Your task to perform on an android device: turn off location history Image 0: 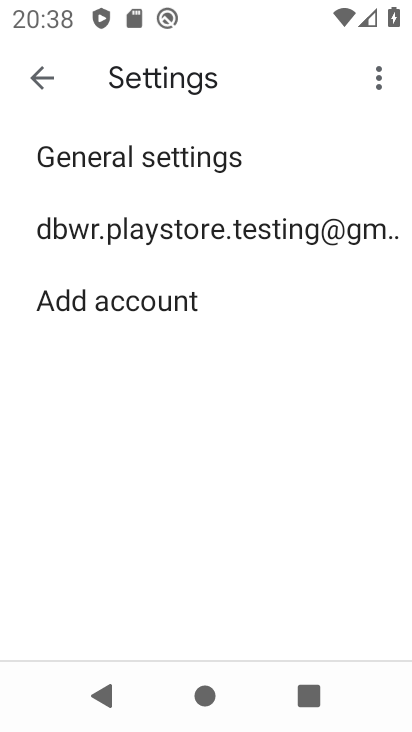
Step 0: press home button
Your task to perform on an android device: turn off location history Image 1: 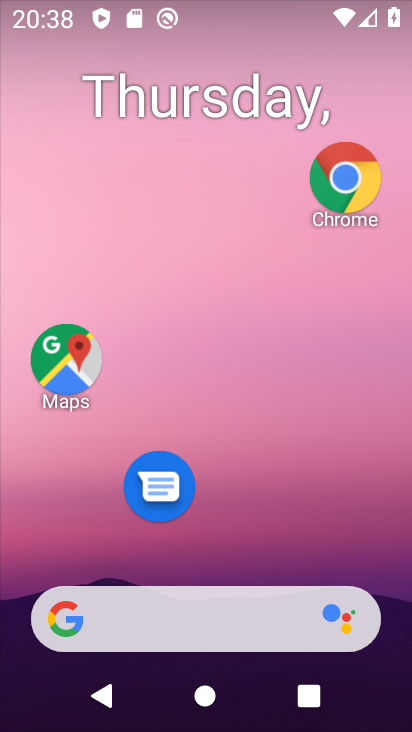
Step 1: drag from (216, 547) to (95, 51)
Your task to perform on an android device: turn off location history Image 2: 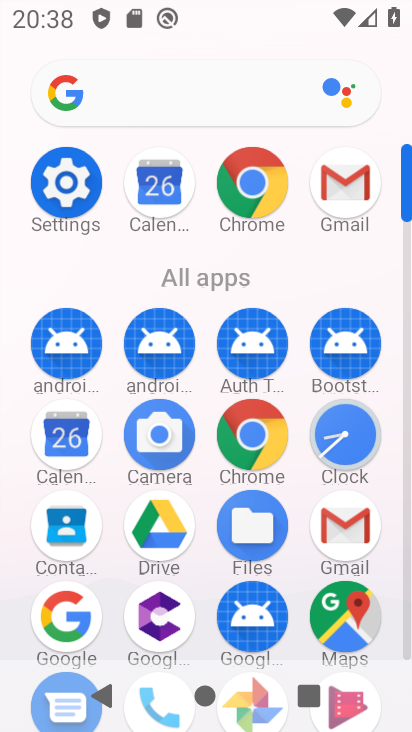
Step 2: click (76, 174)
Your task to perform on an android device: turn off location history Image 3: 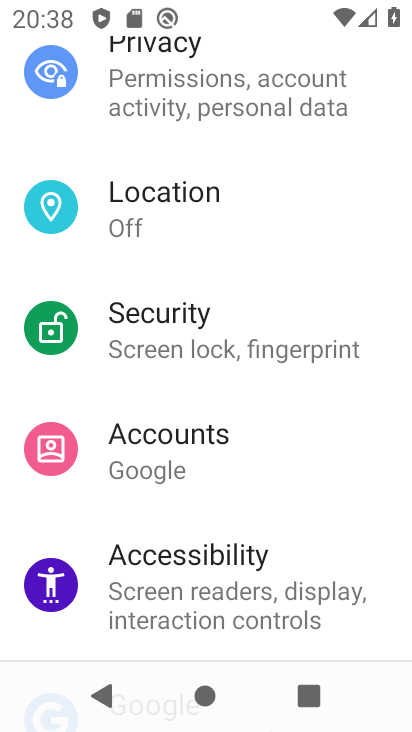
Step 3: click (143, 233)
Your task to perform on an android device: turn off location history Image 4: 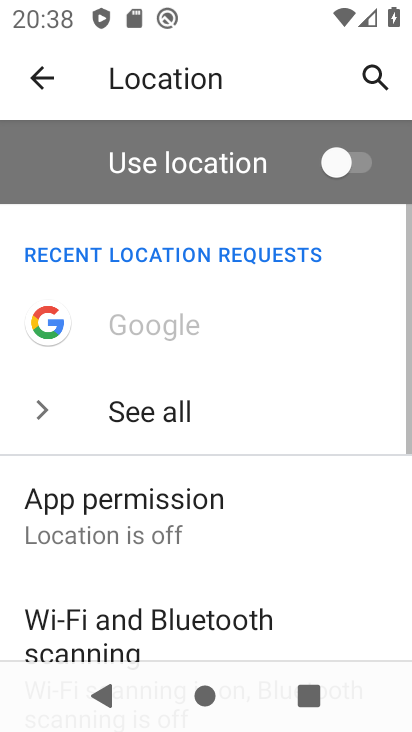
Step 4: drag from (218, 524) to (116, 29)
Your task to perform on an android device: turn off location history Image 5: 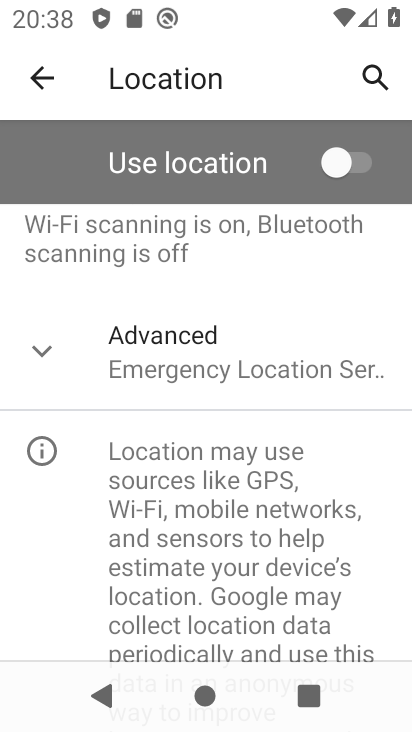
Step 5: click (211, 361)
Your task to perform on an android device: turn off location history Image 6: 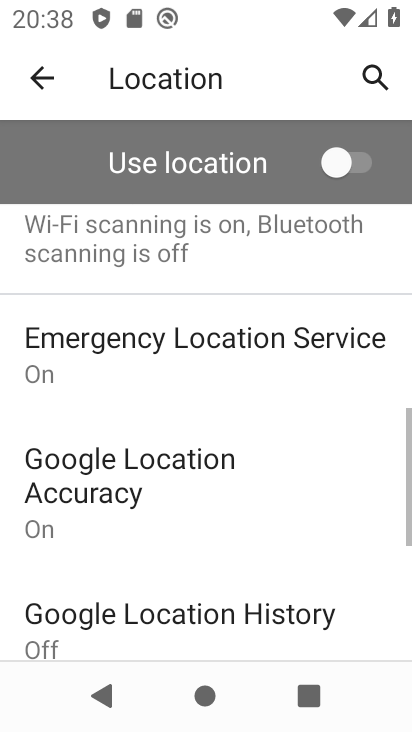
Step 6: drag from (210, 525) to (174, 239)
Your task to perform on an android device: turn off location history Image 7: 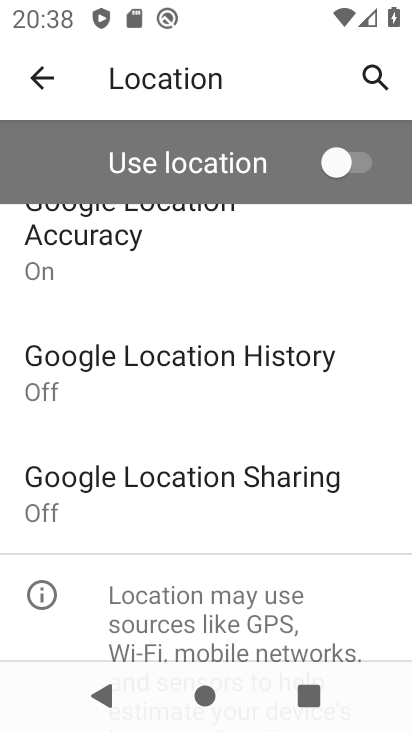
Step 7: click (233, 346)
Your task to perform on an android device: turn off location history Image 8: 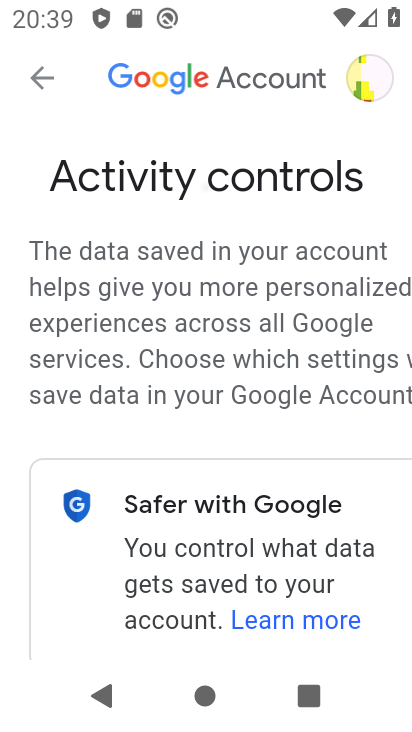
Step 8: drag from (202, 534) to (124, 84)
Your task to perform on an android device: turn off location history Image 9: 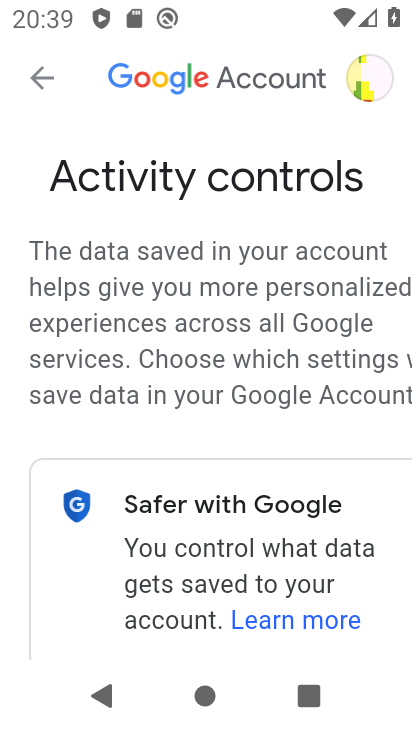
Step 9: drag from (221, 469) to (55, 6)
Your task to perform on an android device: turn off location history Image 10: 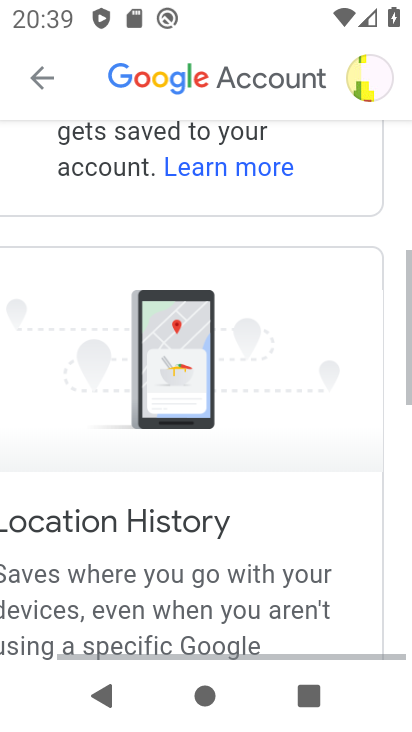
Step 10: drag from (239, 537) to (218, 5)
Your task to perform on an android device: turn off location history Image 11: 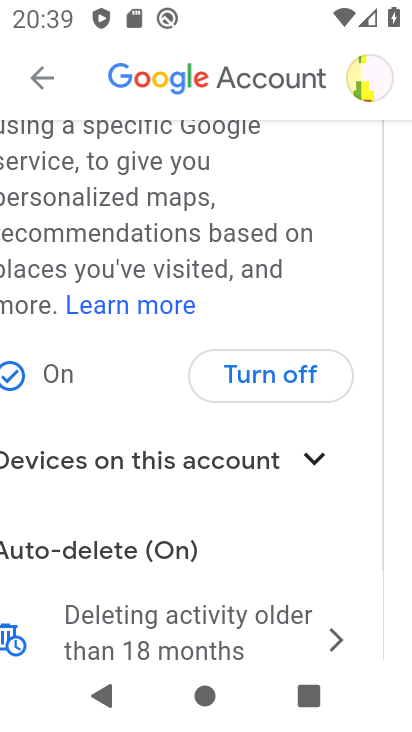
Step 11: click (249, 369)
Your task to perform on an android device: turn off location history Image 12: 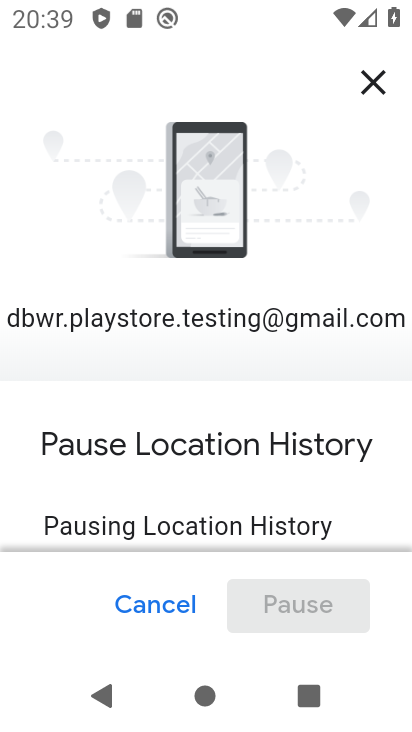
Step 12: drag from (285, 482) to (239, 27)
Your task to perform on an android device: turn off location history Image 13: 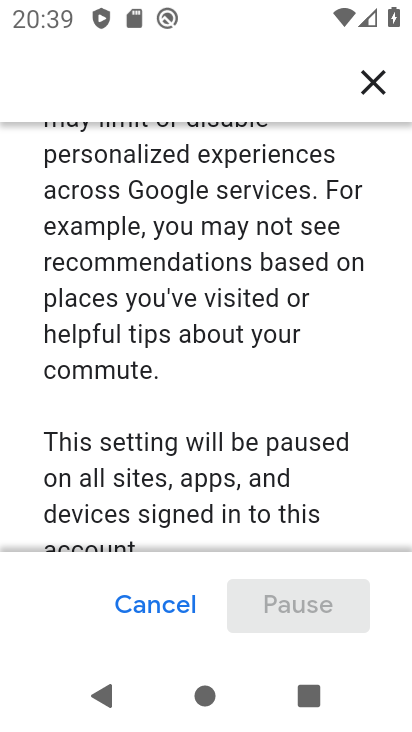
Step 13: drag from (277, 446) to (287, 38)
Your task to perform on an android device: turn off location history Image 14: 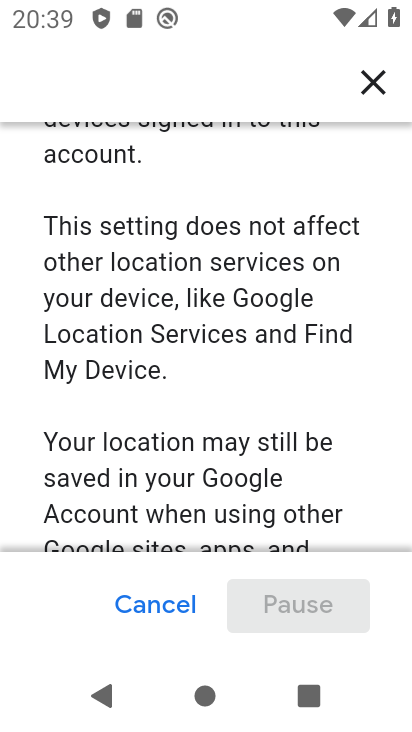
Step 14: drag from (325, 457) to (300, 16)
Your task to perform on an android device: turn off location history Image 15: 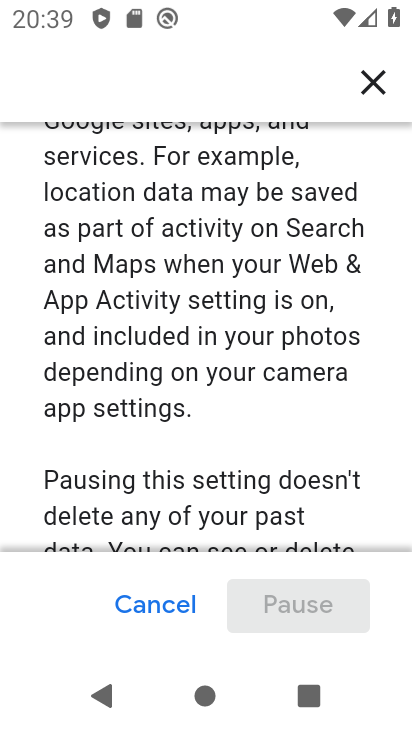
Step 15: drag from (303, 458) to (195, 14)
Your task to perform on an android device: turn off location history Image 16: 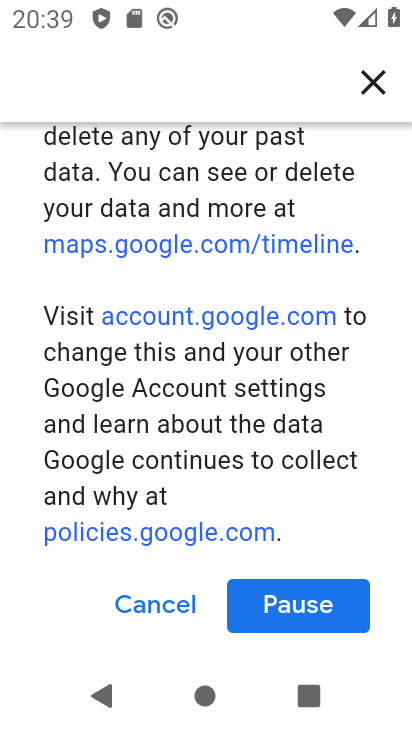
Step 16: click (299, 592)
Your task to perform on an android device: turn off location history Image 17: 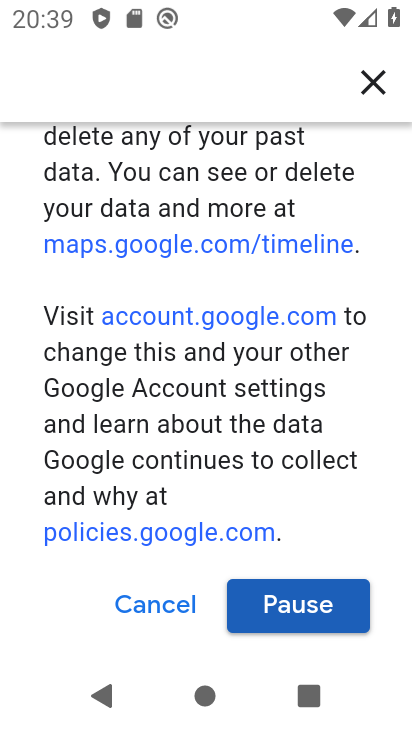
Step 17: click (308, 625)
Your task to perform on an android device: turn off location history Image 18: 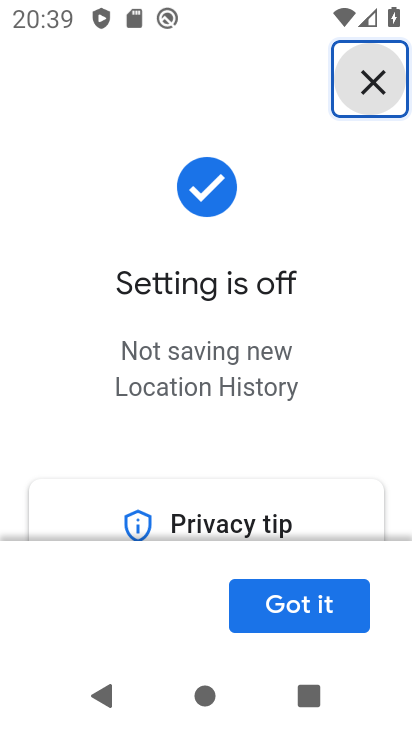
Step 18: click (320, 600)
Your task to perform on an android device: turn off location history Image 19: 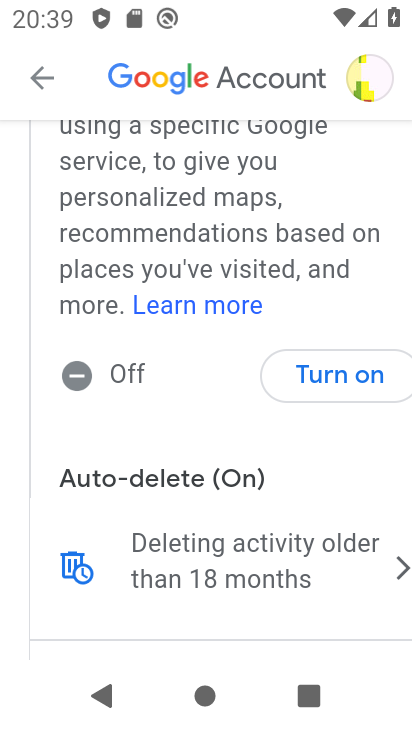
Step 19: task complete